Your task to perform on an android device: turn vacation reply on in the gmail app Image 0: 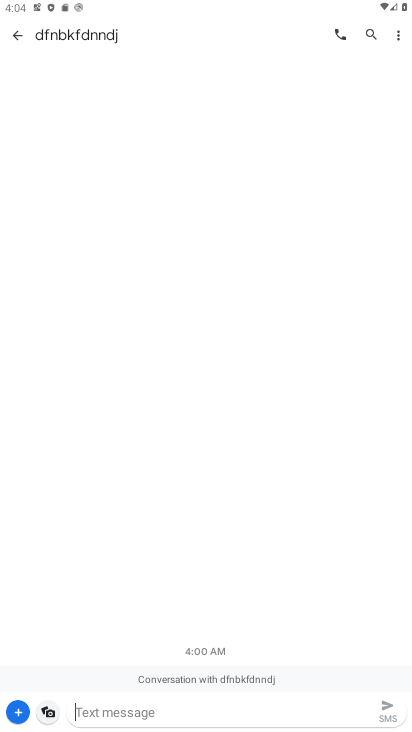
Step 0: press back button
Your task to perform on an android device: turn vacation reply on in the gmail app Image 1: 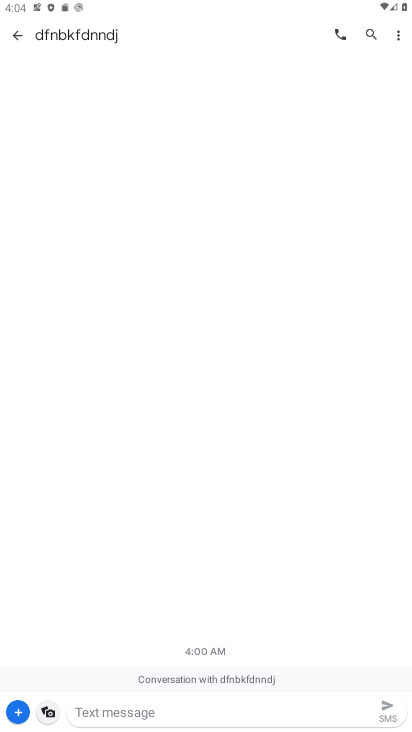
Step 1: press back button
Your task to perform on an android device: turn vacation reply on in the gmail app Image 2: 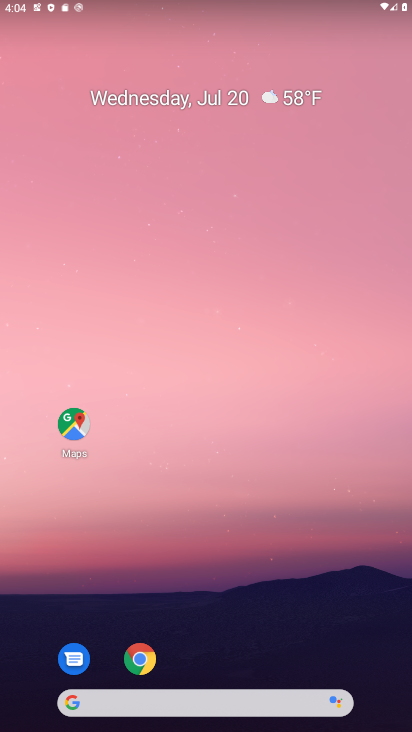
Step 2: drag from (242, 572) to (178, 143)
Your task to perform on an android device: turn vacation reply on in the gmail app Image 3: 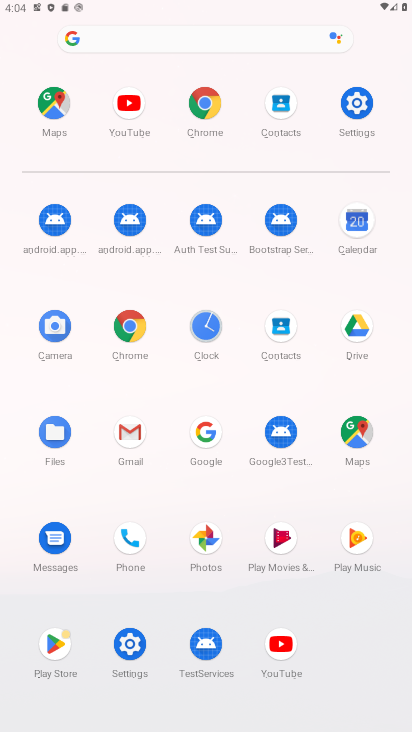
Step 3: click (130, 433)
Your task to perform on an android device: turn vacation reply on in the gmail app Image 4: 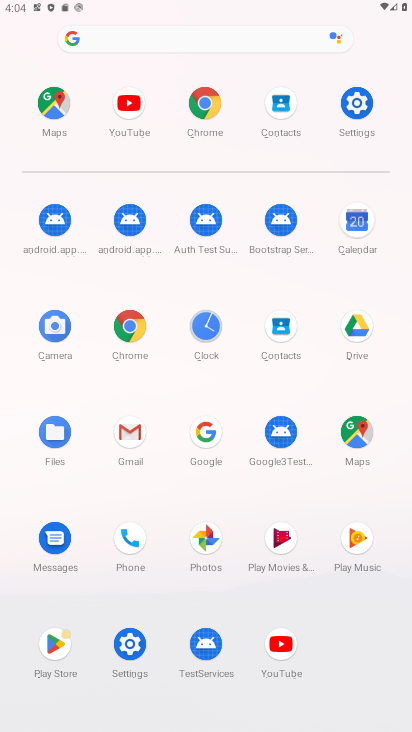
Step 4: click (140, 425)
Your task to perform on an android device: turn vacation reply on in the gmail app Image 5: 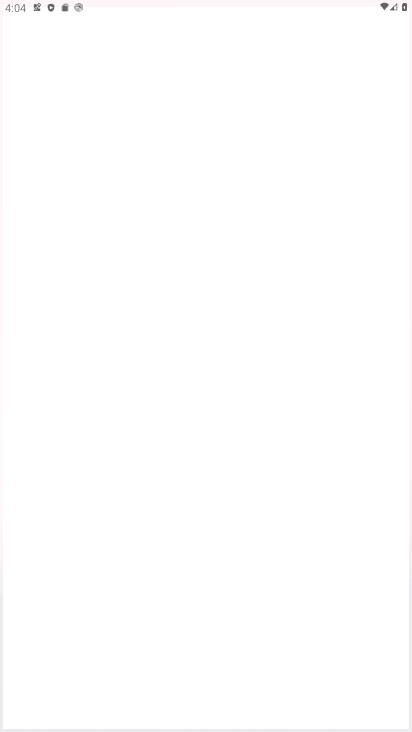
Step 5: click (145, 419)
Your task to perform on an android device: turn vacation reply on in the gmail app Image 6: 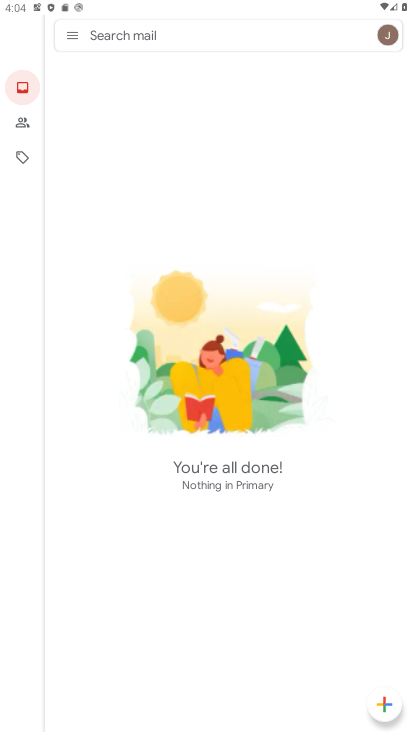
Step 6: click (62, 28)
Your task to perform on an android device: turn vacation reply on in the gmail app Image 7: 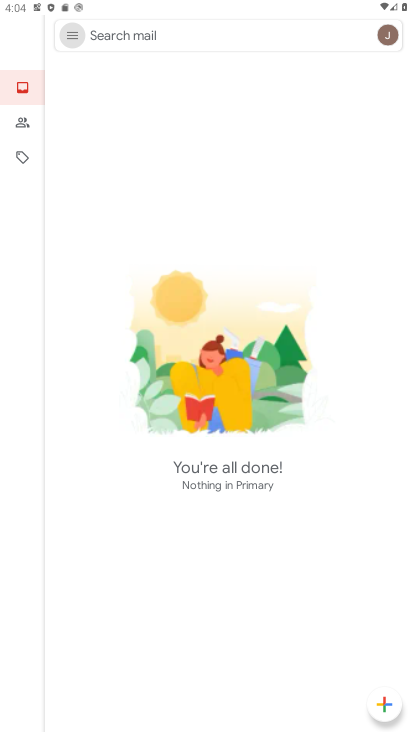
Step 7: click (78, 23)
Your task to perform on an android device: turn vacation reply on in the gmail app Image 8: 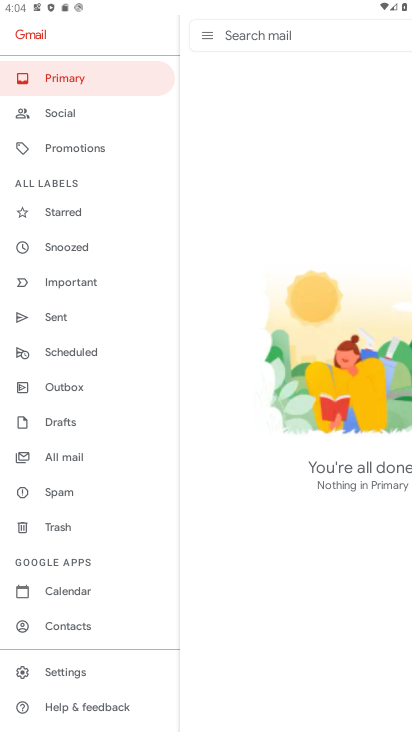
Step 8: click (67, 661)
Your task to perform on an android device: turn vacation reply on in the gmail app Image 9: 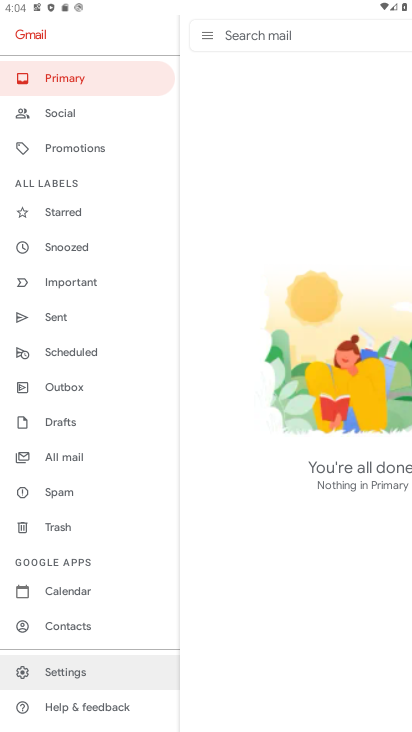
Step 9: click (67, 666)
Your task to perform on an android device: turn vacation reply on in the gmail app Image 10: 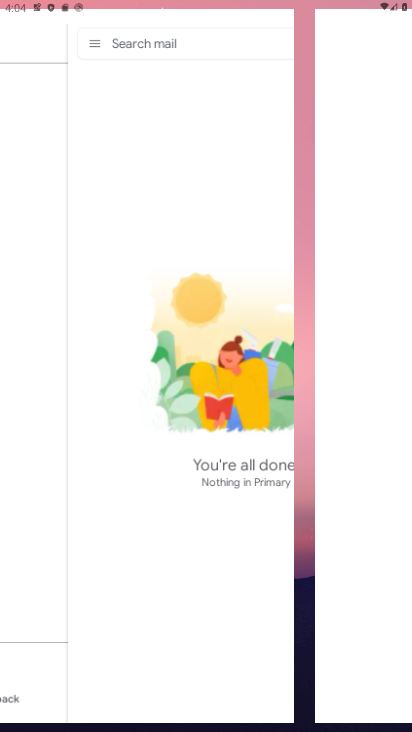
Step 10: click (67, 666)
Your task to perform on an android device: turn vacation reply on in the gmail app Image 11: 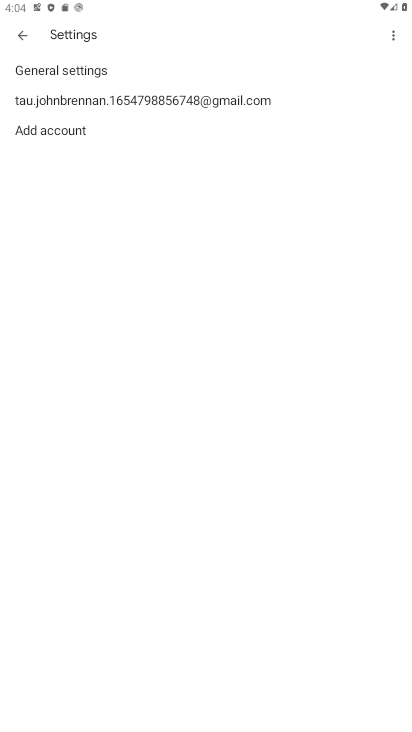
Step 11: click (100, 93)
Your task to perform on an android device: turn vacation reply on in the gmail app Image 12: 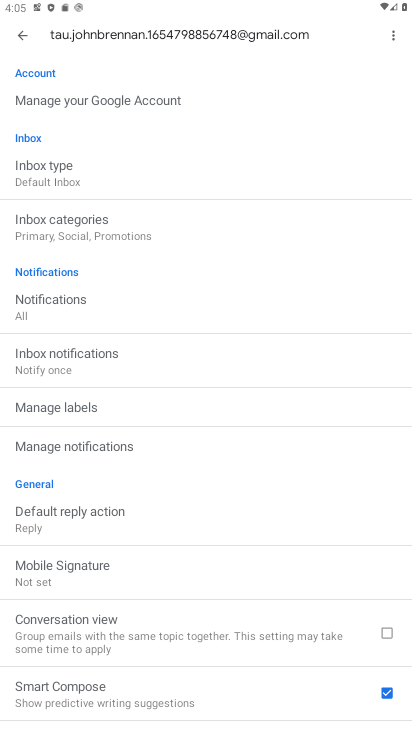
Step 12: drag from (67, 550) to (50, 122)
Your task to perform on an android device: turn vacation reply on in the gmail app Image 13: 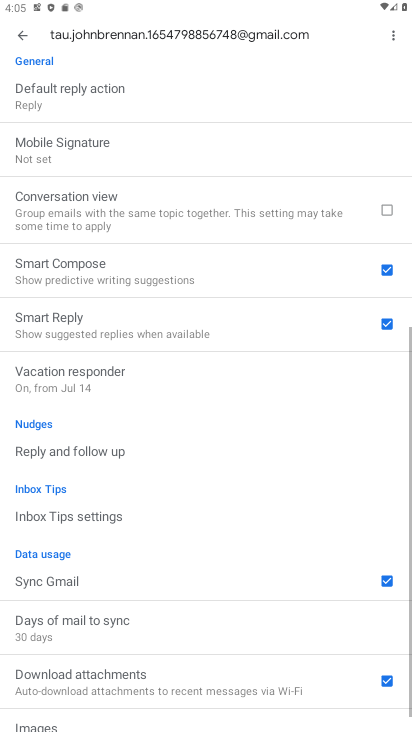
Step 13: drag from (142, 556) to (146, 258)
Your task to perform on an android device: turn vacation reply on in the gmail app Image 14: 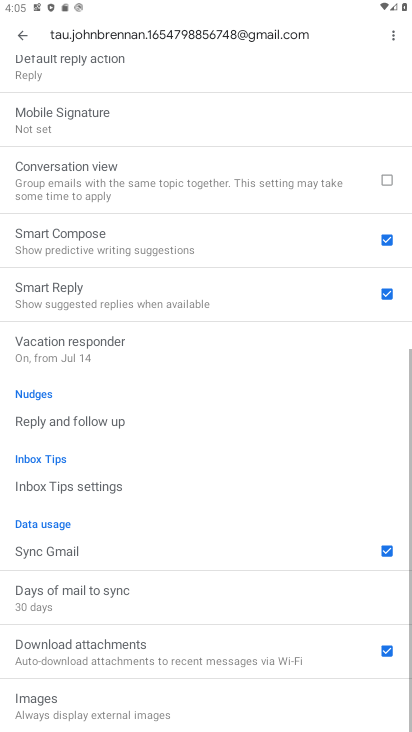
Step 14: drag from (64, 375) to (46, 14)
Your task to perform on an android device: turn vacation reply on in the gmail app Image 15: 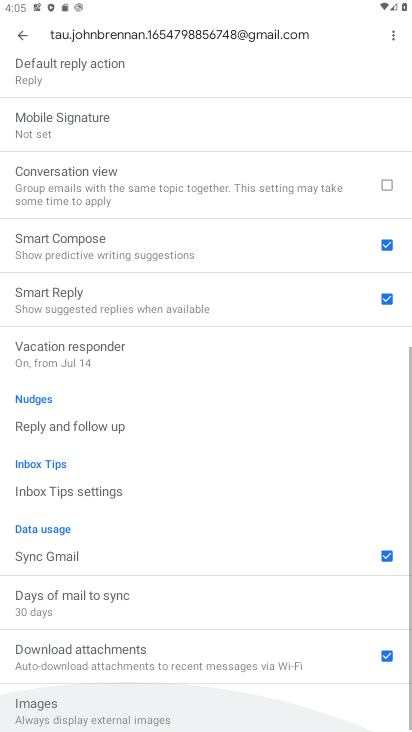
Step 15: drag from (116, 503) to (125, 237)
Your task to perform on an android device: turn vacation reply on in the gmail app Image 16: 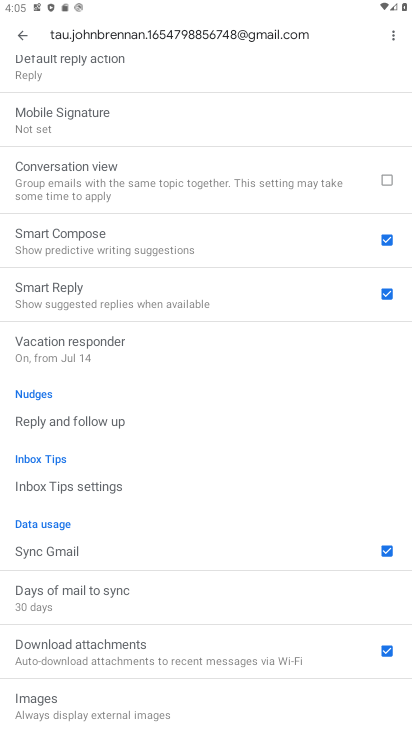
Step 16: click (65, 339)
Your task to perform on an android device: turn vacation reply on in the gmail app Image 17: 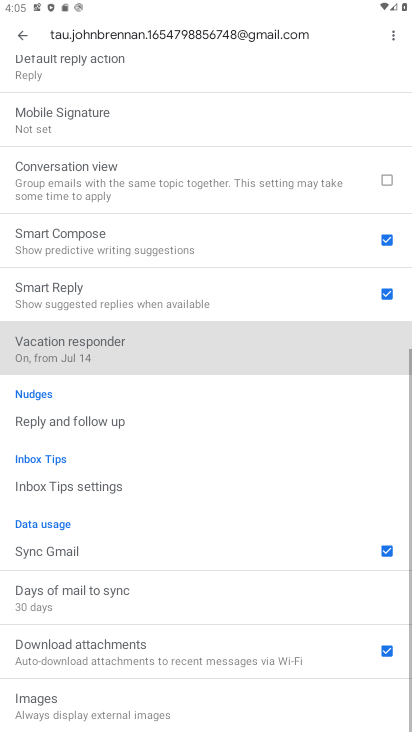
Step 17: click (66, 340)
Your task to perform on an android device: turn vacation reply on in the gmail app Image 18: 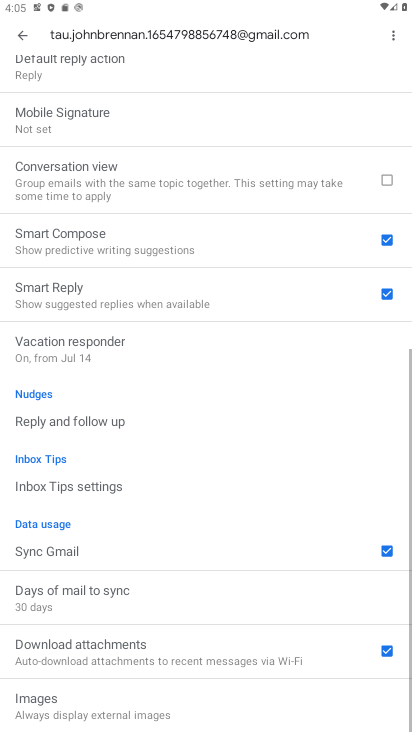
Step 18: click (66, 341)
Your task to perform on an android device: turn vacation reply on in the gmail app Image 19: 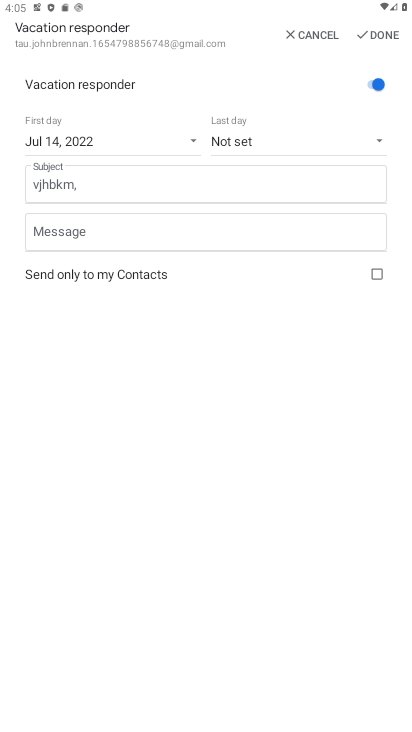
Step 19: task complete